Your task to perform on an android device: Go to location settings Image 0: 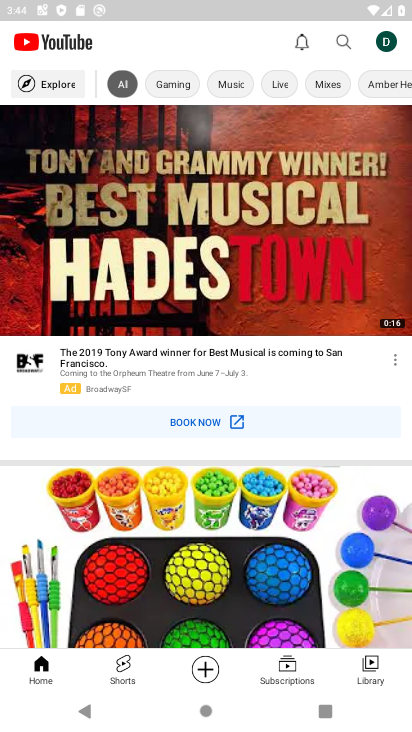
Step 0: press home button
Your task to perform on an android device: Go to location settings Image 1: 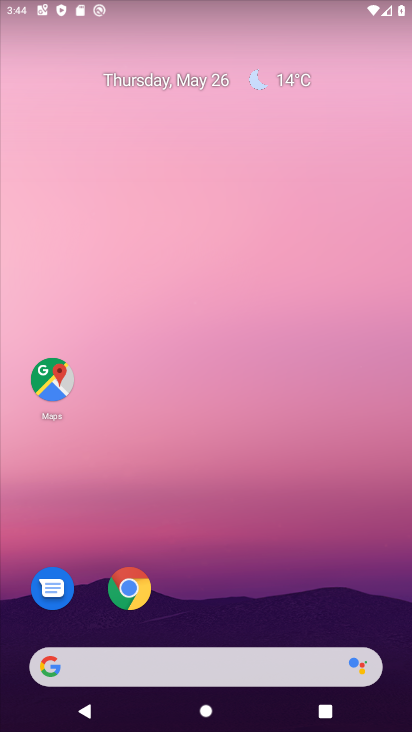
Step 1: drag from (262, 572) to (269, 59)
Your task to perform on an android device: Go to location settings Image 2: 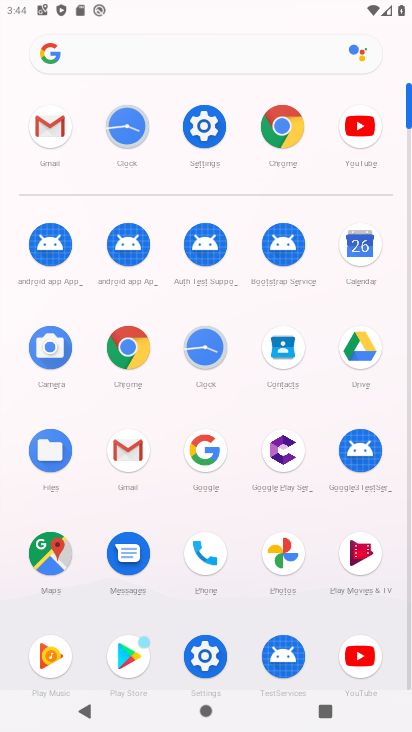
Step 2: click (206, 667)
Your task to perform on an android device: Go to location settings Image 3: 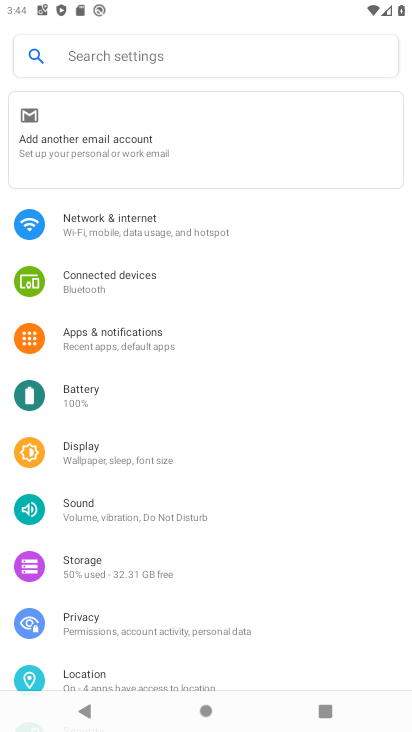
Step 3: click (132, 669)
Your task to perform on an android device: Go to location settings Image 4: 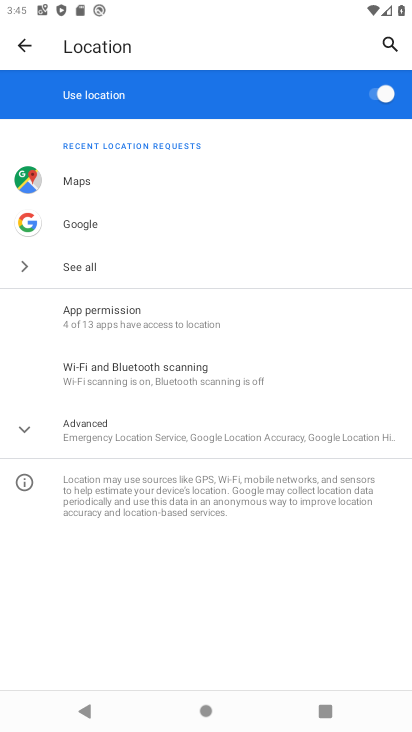
Step 4: click (170, 418)
Your task to perform on an android device: Go to location settings Image 5: 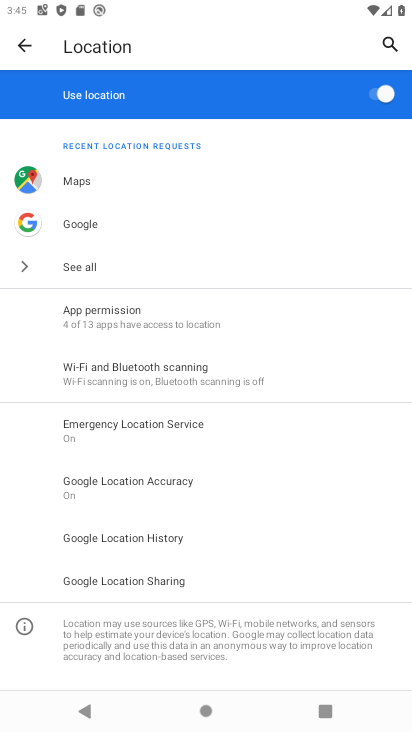
Step 5: task complete